Your task to perform on an android device: uninstall "Indeed Job Search" Image 0: 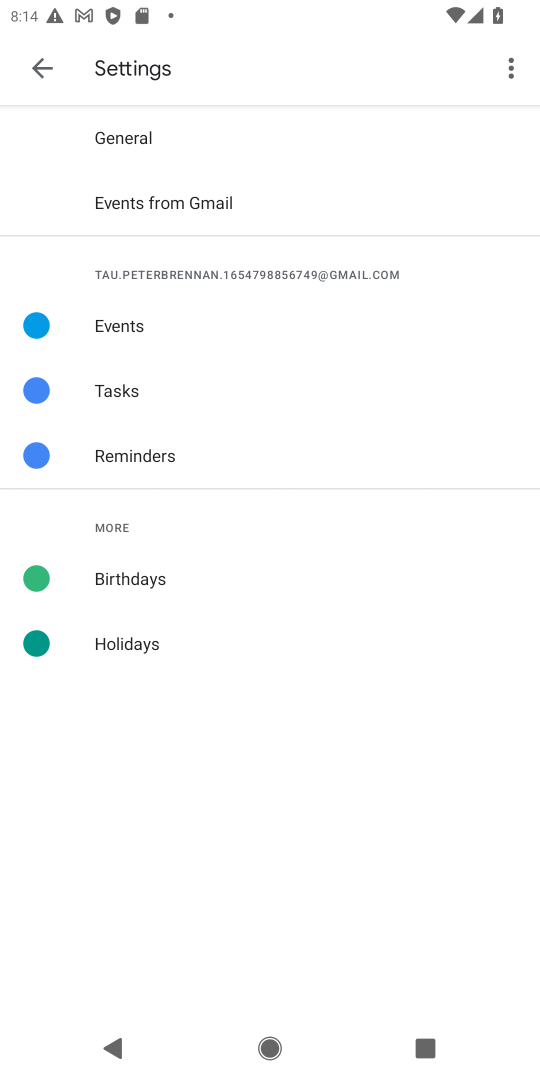
Step 0: press home button
Your task to perform on an android device: uninstall "Indeed Job Search" Image 1: 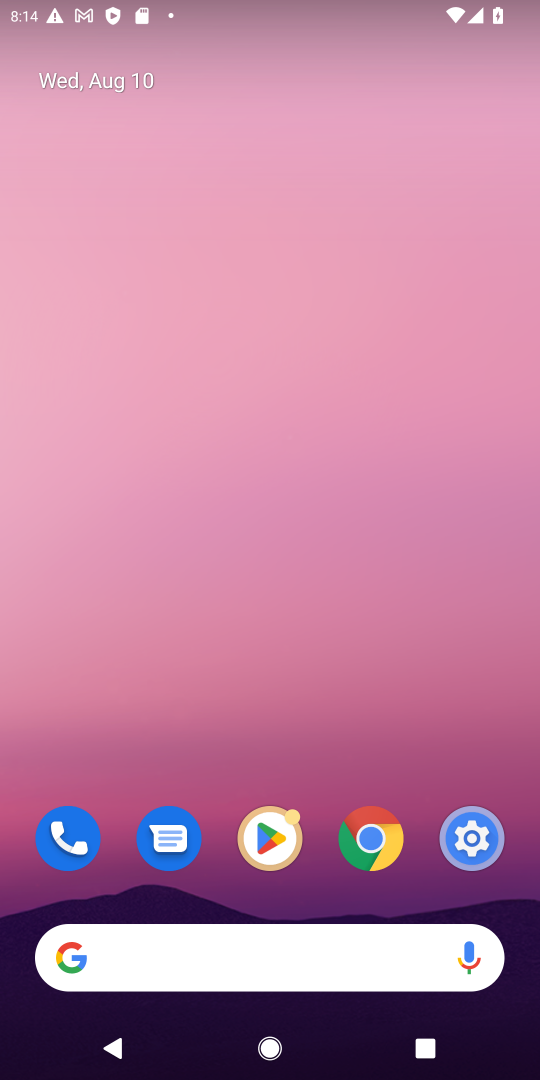
Step 1: click (270, 835)
Your task to perform on an android device: uninstall "Indeed Job Search" Image 2: 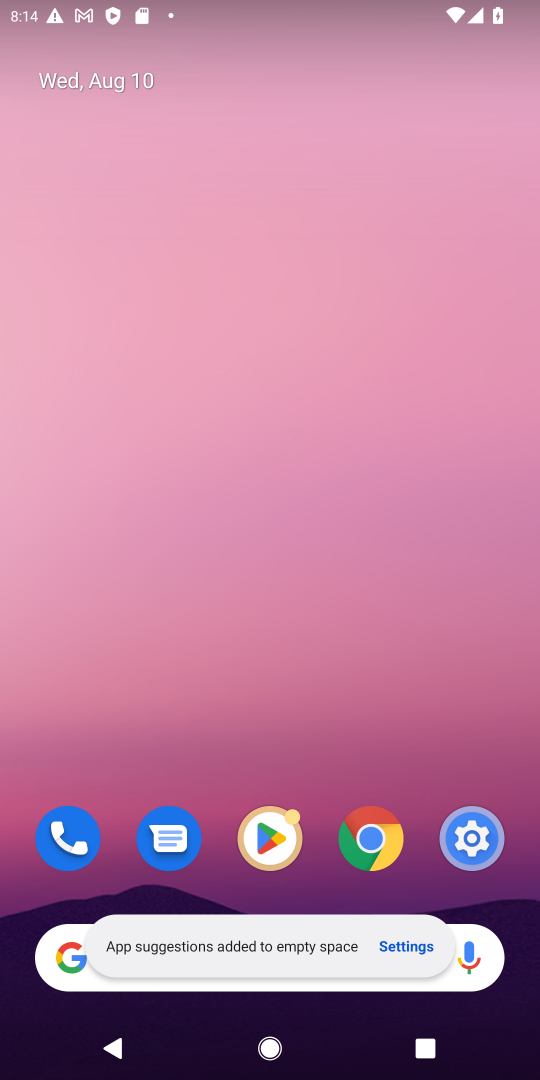
Step 2: click (265, 703)
Your task to perform on an android device: uninstall "Indeed Job Search" Image 3: 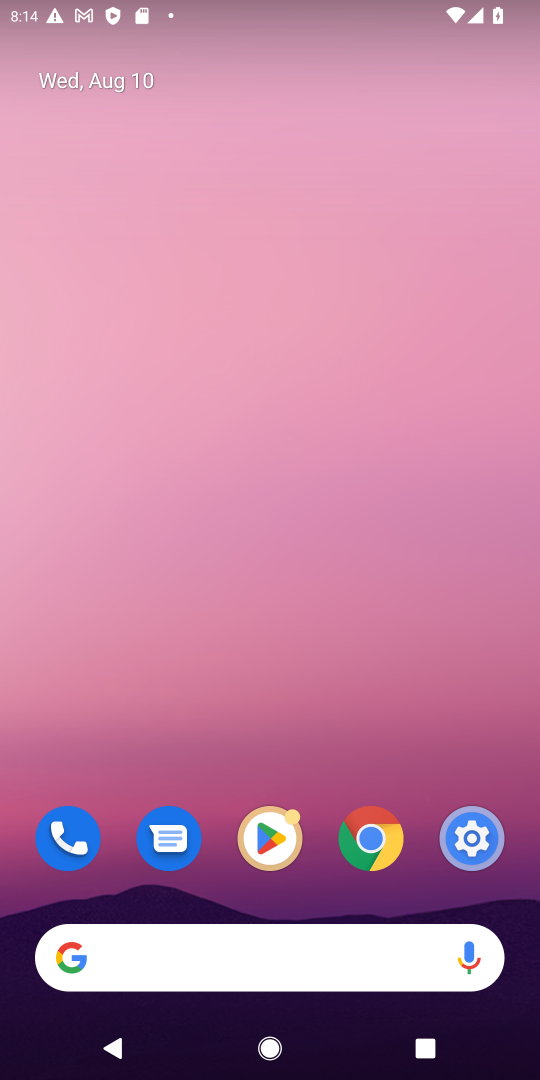
Step 3: drag from (304, 774) to (237, 0)
Your task to perform on an android device: uninstall "Indeed Job Search" Image 4: 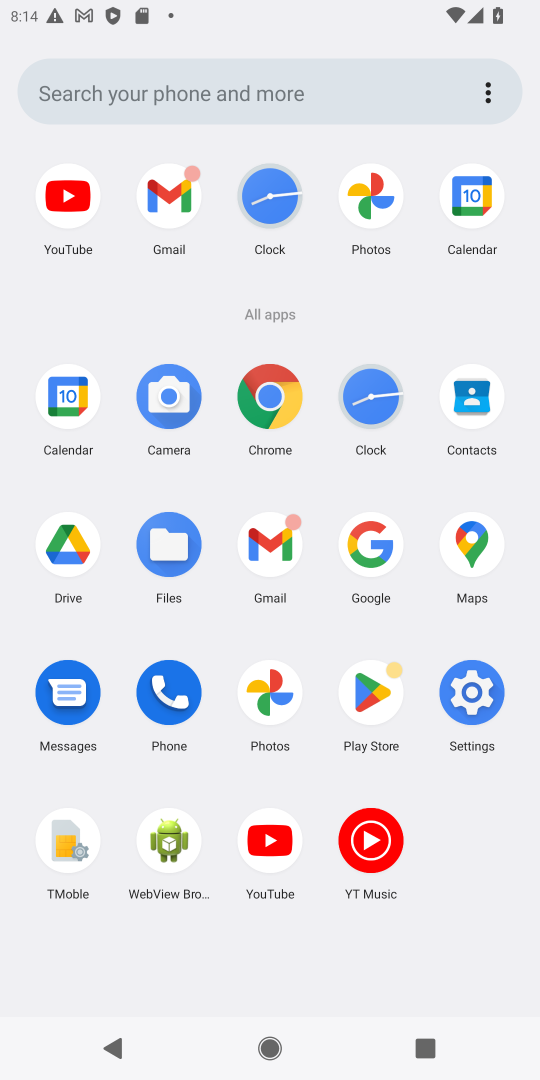
Step 4: click (365, 691)
Your task to perform on an android device: uninstall "Indeed Job Search" Image 5: 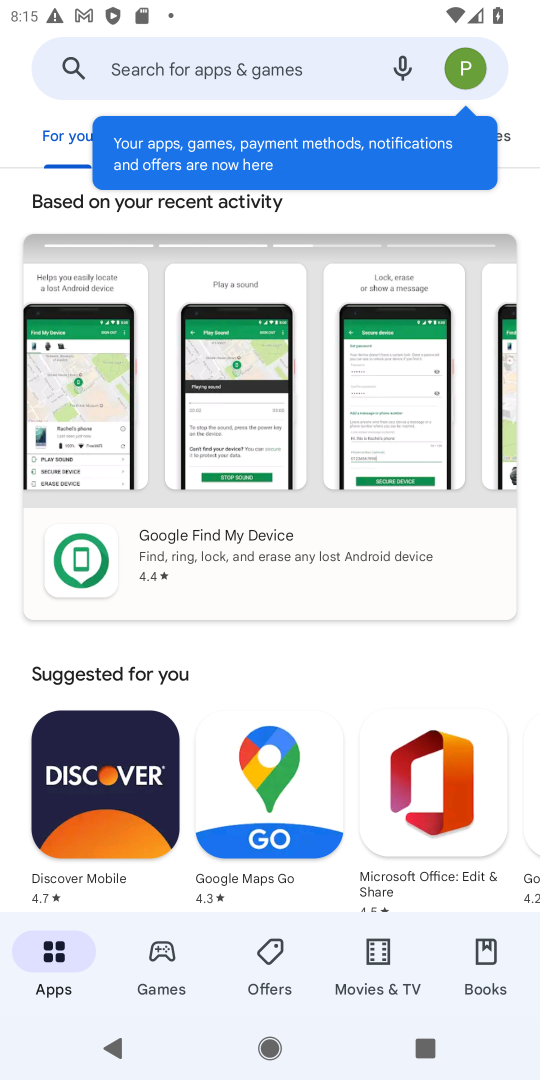
Step 5: type "Indeed Job Search"
Your task to perform on an android device: uninstall "Indeed Job Search" Image 6: 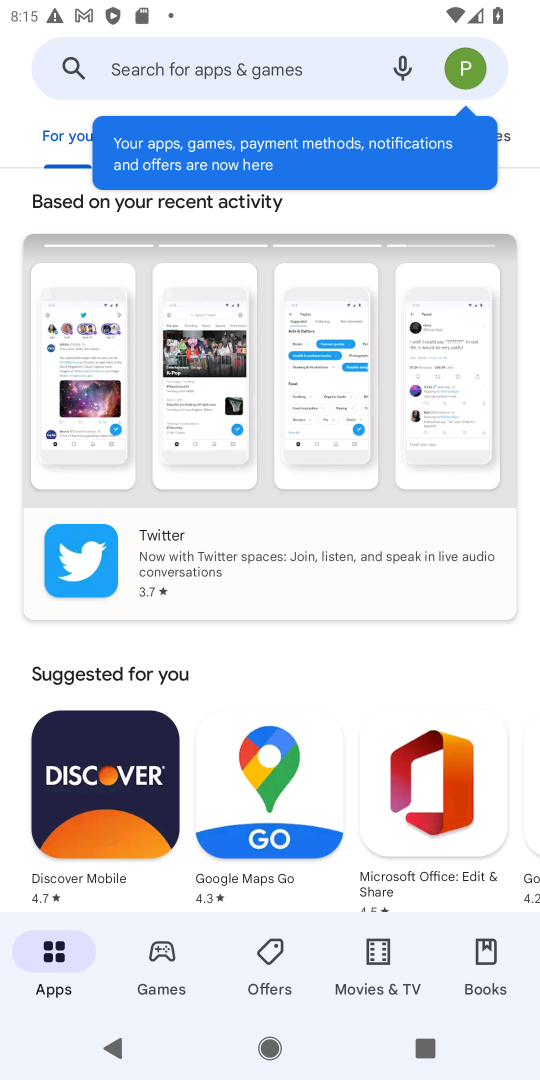
Step 6: click (149, 64)
Your task to perform on an android device: uninstall "Indeed Job Search" Image 7: 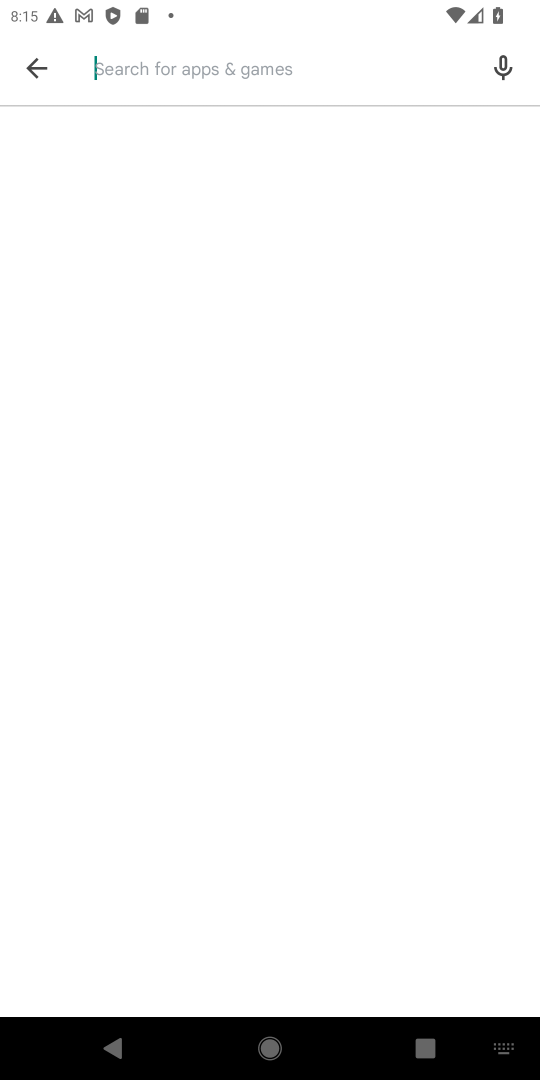
Step 7: type "Indeed Job Search"
Your task to perform on an android device: uninstall "Indeed Job Search" Image 8: 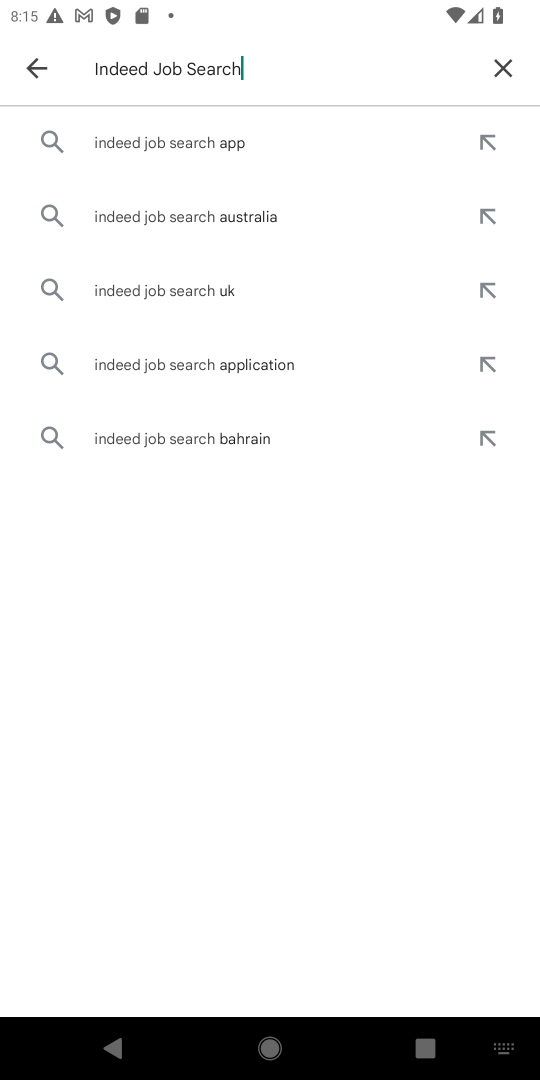
Step 8: click (172, 143)
Your task to perform on an android device: uninstall "Indeed Job Search" Image 9: 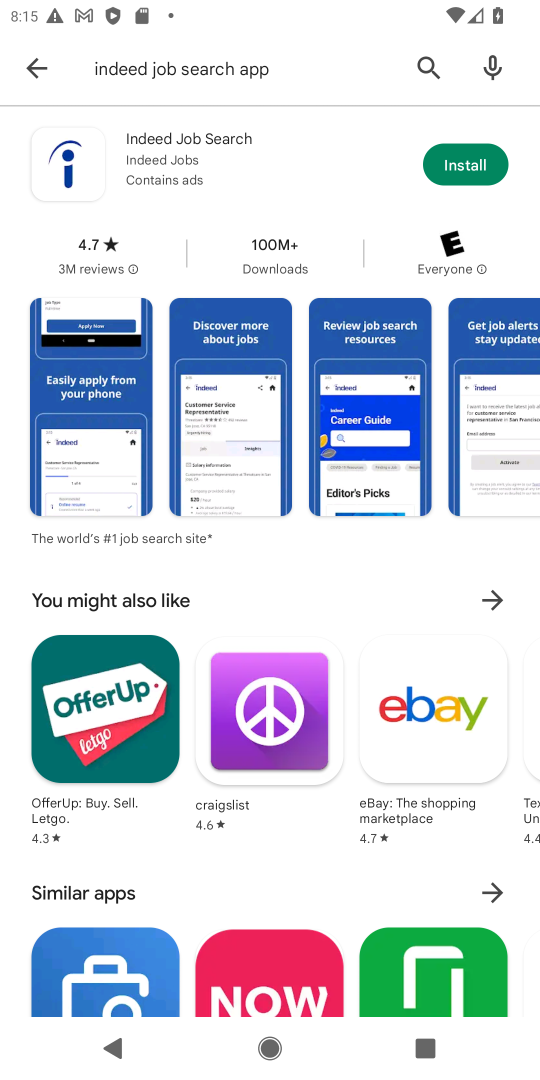
Step 9: task complete